Your task to perform on an android device: turn off notifications settings in the gmail app Image 0: 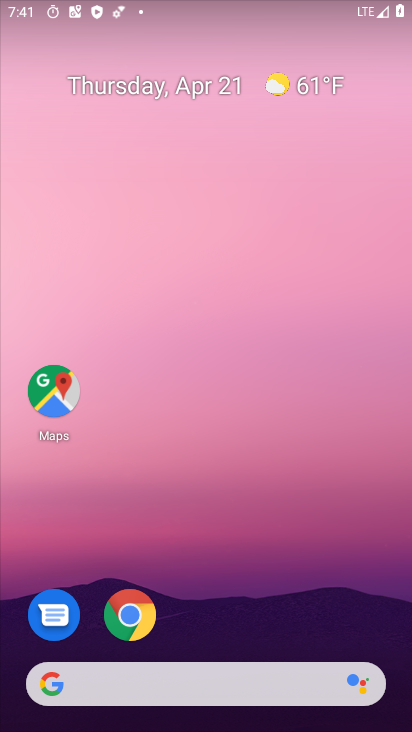
Step 0: drag from (199, 564) to (269, 172)
Your task to perform on an android device: turn off notifications settings in the gmail app Image 1: 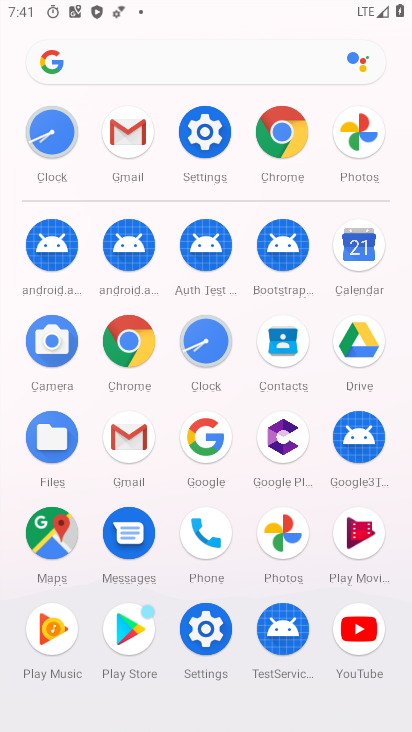
Step 1: click (128, 444)
Your task to perform on an android device: turn off notifications settings in the gmail app Image 2: 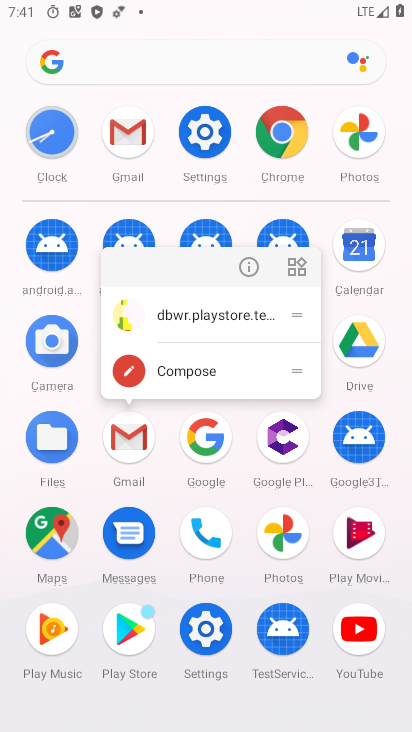
Step 2: click (245, 274)
Your task to perform on an android device: turn off notifications settings in the gmail app Image 3: 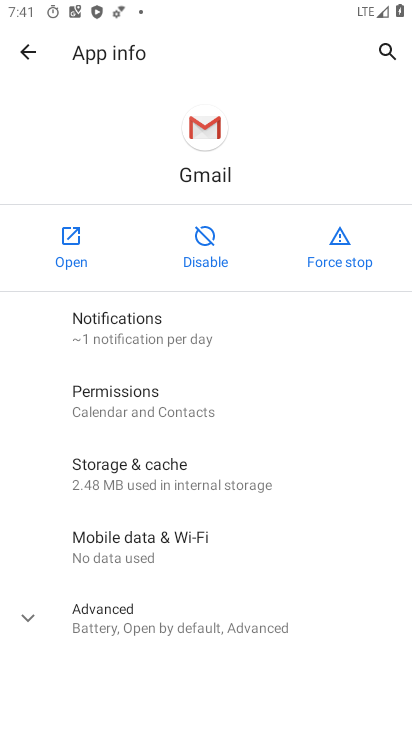
Step 3: click (64, 250)
Your task to perform on an android device: turn off notifications settings in the gmail app Image 4: 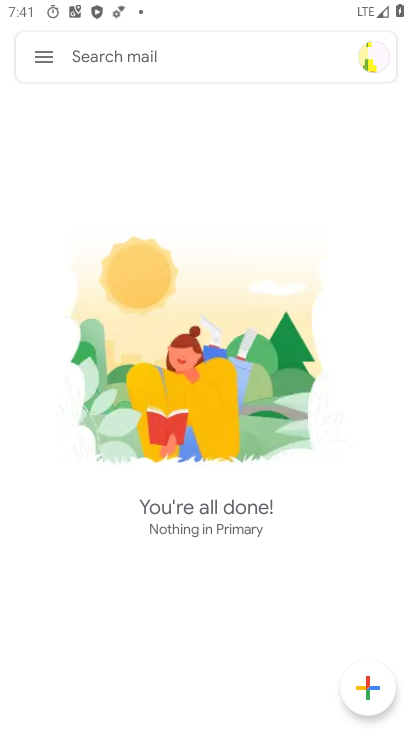
Step 4: click (35, 55)
Your task to perform on an android device: turn off notifications settings in the gmail app Image 5: 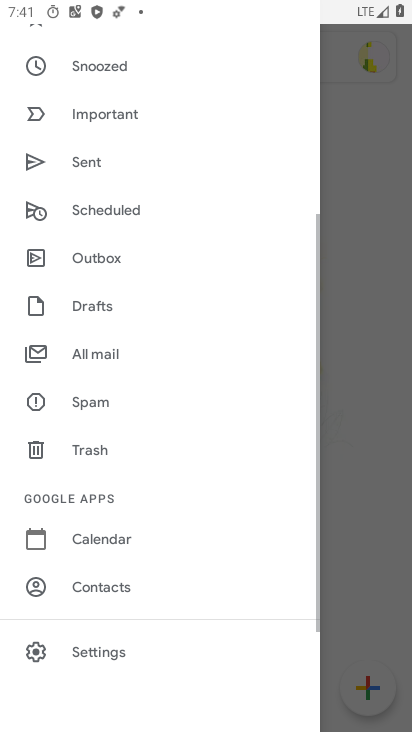
Step 5: drag from (176, 487) to (183, 296)
Your task to perform on an android device: turn off notifications settings in the gmail app Image 6: 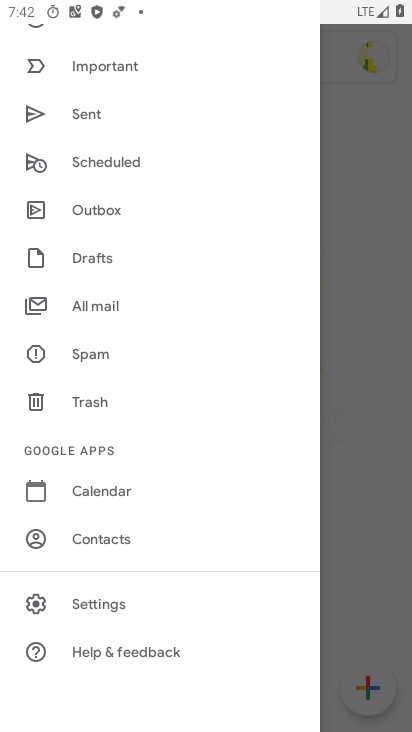
Step 6: click (130, 595)
Your task to perform on an android device: turn off notifications settings in the gmail app Image 7: 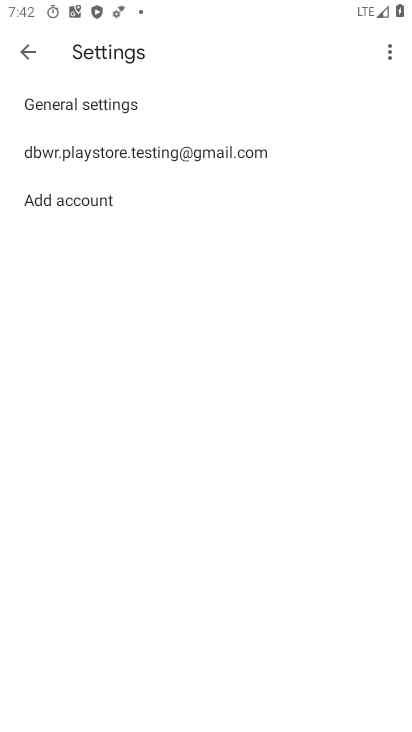
Step 7: click (138, 155)
Your task to perform on an android device: turn off notifications settings in the gmail app Image 8: 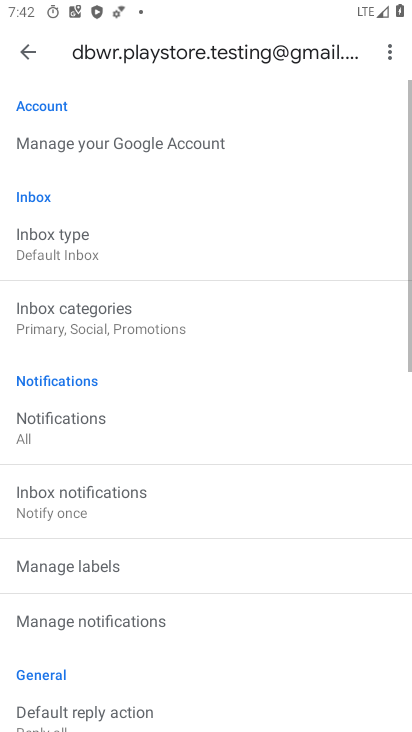
Step 8: drag from (173, 530) to (235, 178)
Your task to perform on an android device: turn off notifications settings in the gmail app Image 9: 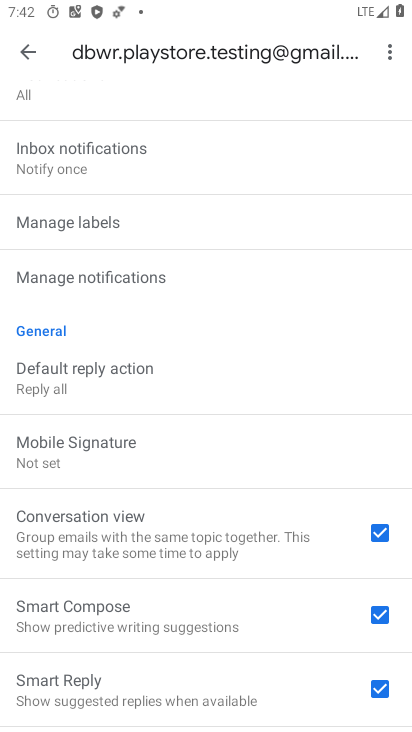
Step 9: drag from (204, 191) to (304, 513)
Your task to perform on an android device: turn off notifications settings in the gmail app Image 10: 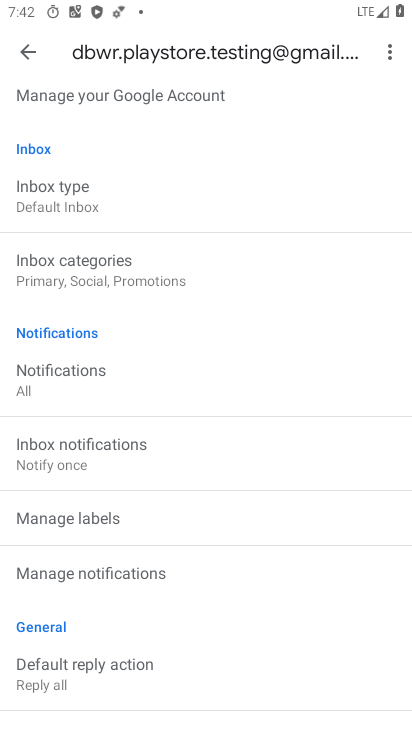
Step 10: drag from (143, 214) to (166, 598)
Your task to perform on an android device: turn off notifications settings in the gmail app Image 11: 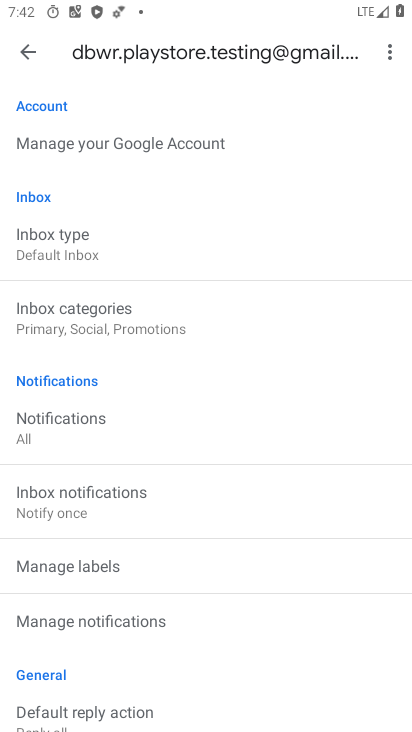
Step 11: drag from (176, 599) to (258, 173)
Your task to perform on an android device: turn off notifications settings in the gmail app Image 12: 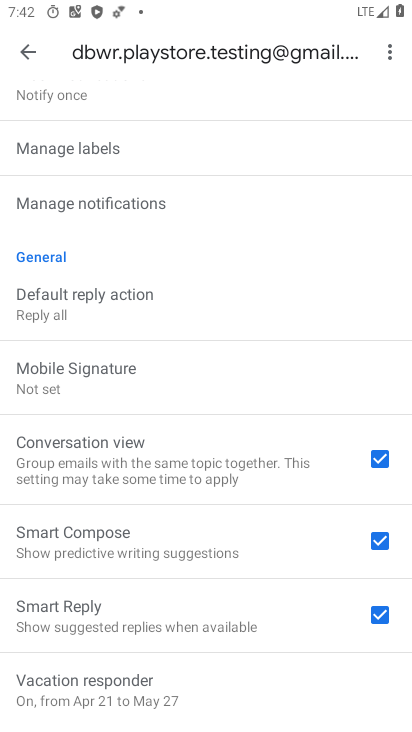
Step 12: click (156, 206)
Your task to perform on an android device: turn off notifications settings in the gmail app Image 13: 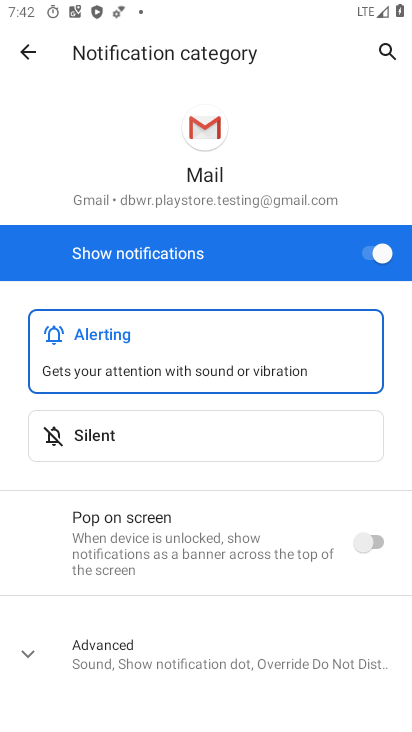
Step 13: drag from (287, 498) to (349, 240)
Your task to perform on an android device: turn off notifications settings in the gmail app Image 14: 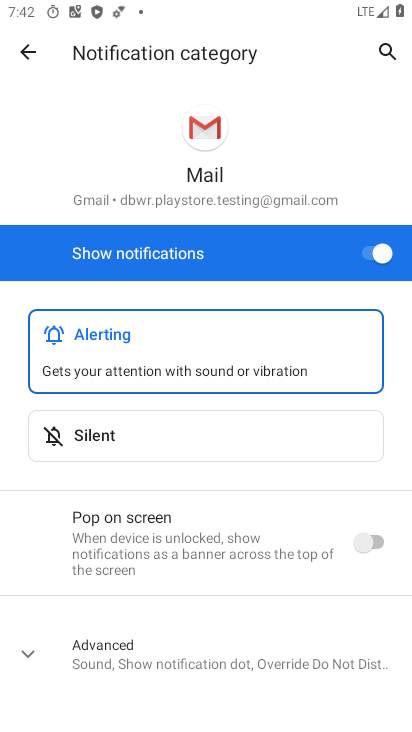
Step 14: click (370, 252)
Your task to perform on an android device: turn off notifications settings in the gmail app Image 15: 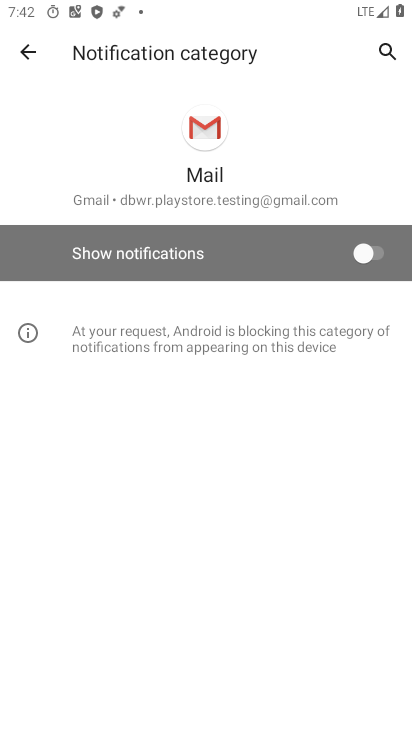
Step 15: task complete